Your task to perform on an android device: Open network settings Image 0: 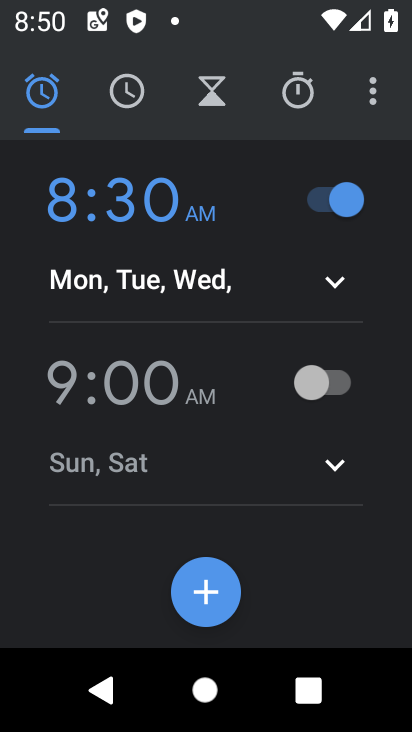
Step 0: click (383, 96)
Your task to perform on an android device: Open network settings Image 1: 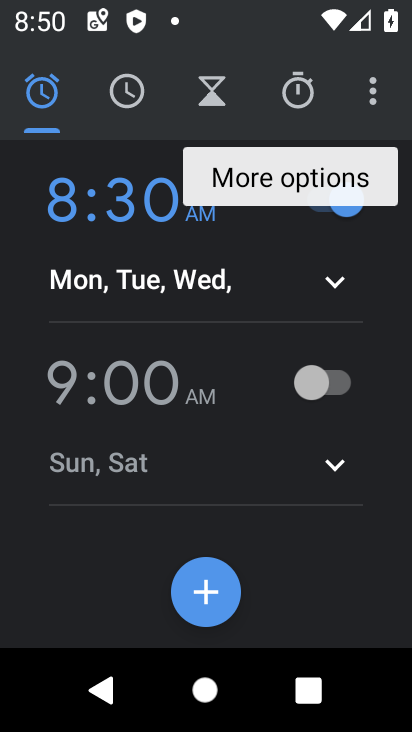
Step 1: click (375, 101)
Your task to perform on an android device: Open network settings Image 2: 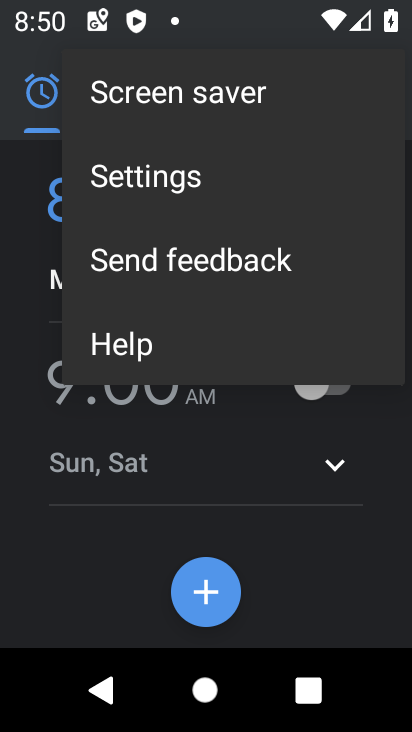
Step 2: press home button
Your task to perform on an android device: Open network settings Image 3: 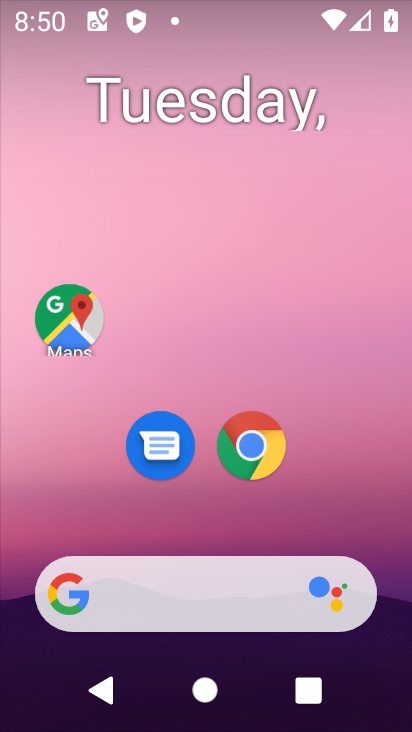
Step 3: drag from (63, 656) to (346, 179)
Your task to perform on an android device: Open network settings Image 4: 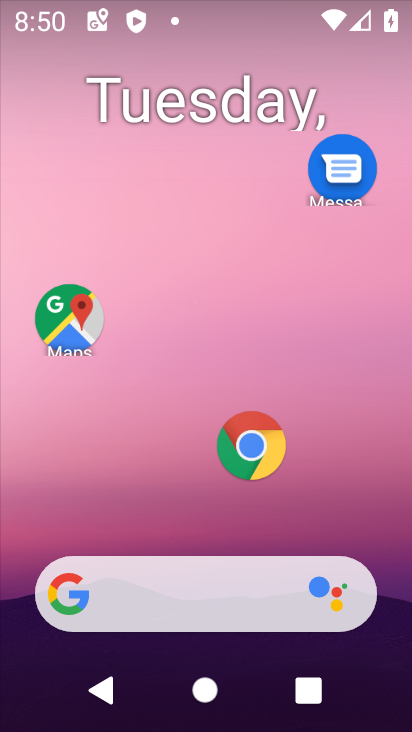
Step 4: click (194, 192)
Your task to perform on an android device: Open network settings Image 5: 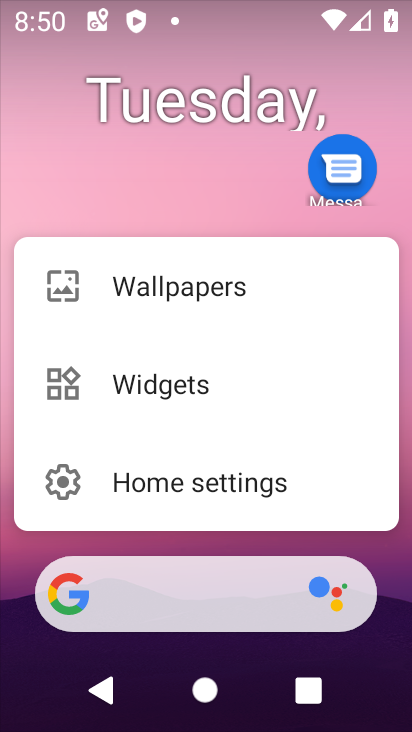
Step 5: click (15, 602)
Your task to perform on an android device: Open network settings Image 6: 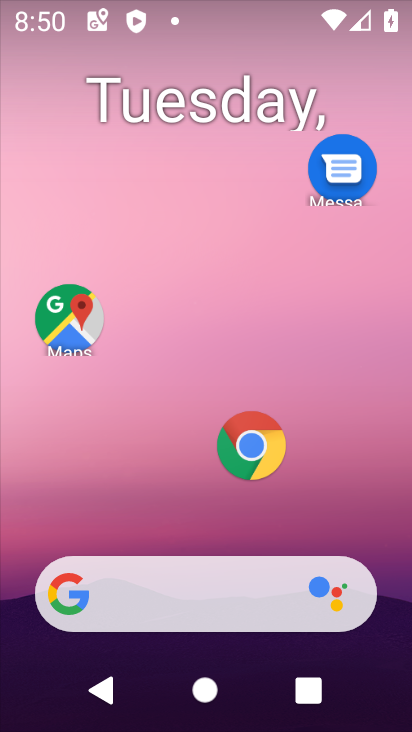
Step 6: drag from (67, 444) to (157, 250)
Your task to perform on an android device: Open network settings Image 7: 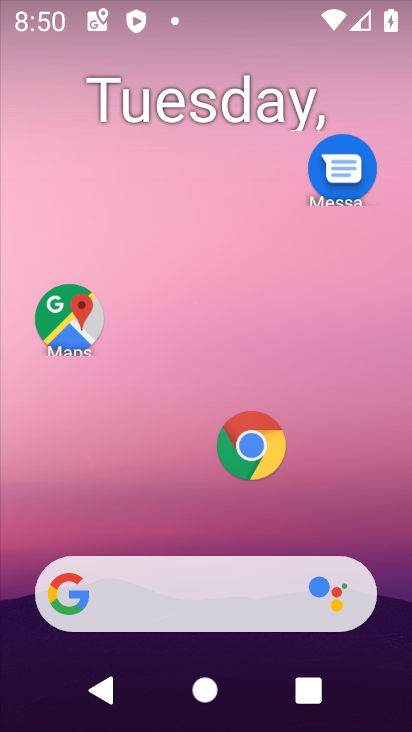
Step 7: drag from (52, 522) to (204, 290)
Your task to perform on an android device: Open network settings Image 8: 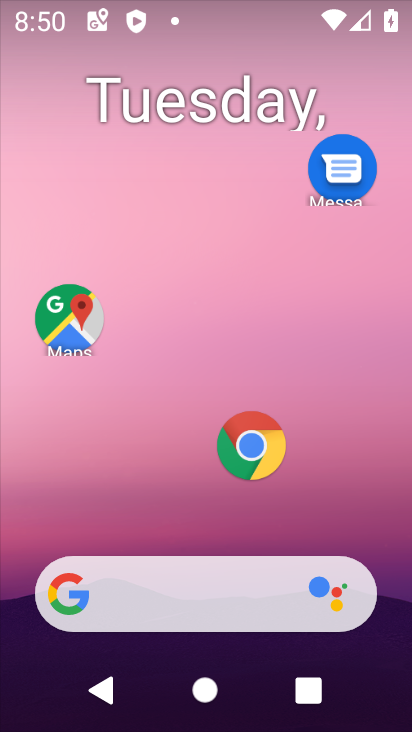
Step 8: click (247, 201)
Your task to perform on an android device: Open network settings Image 9: 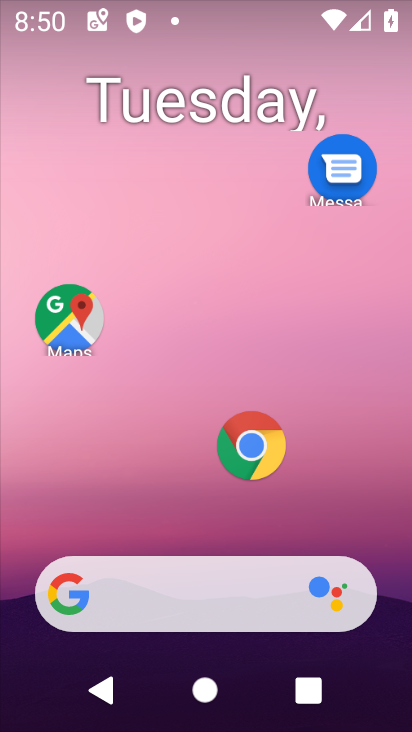
Step 9: drag from (42, 610) to (236, 274)
Your task to perform on an android device: Open network settings Image 10: 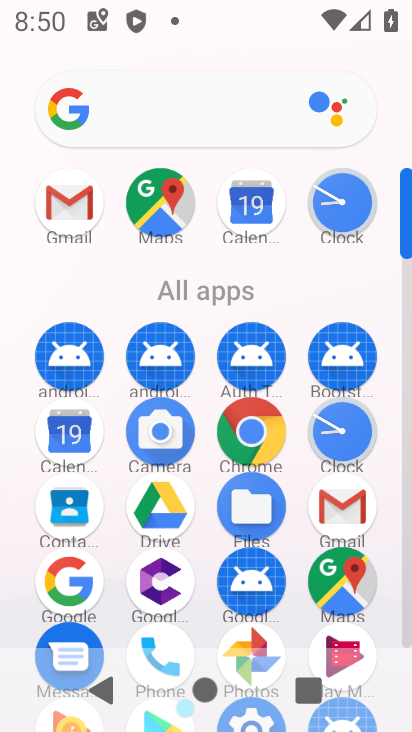
Step 10: drag from (51, 610) to (272, 229)
Your task to perform on an android device: Open network settings Image 11: 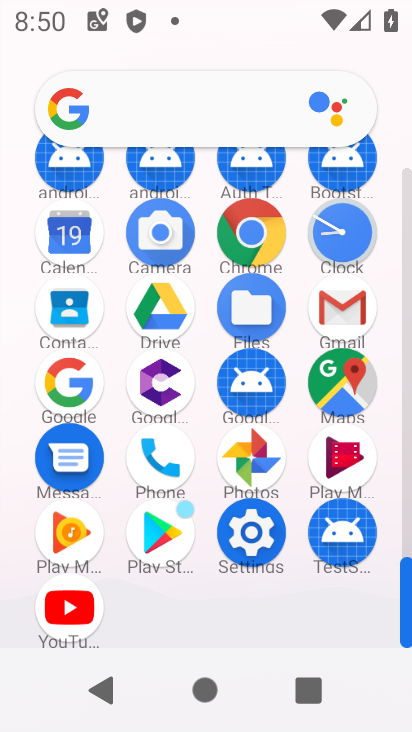
Step 11: click (232, 537)
Your task to perform on an android device: Open network settings Image 12: 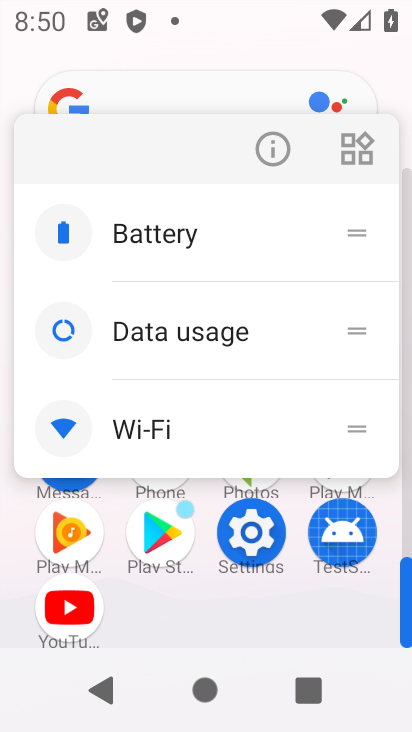
Step 12: click (244, 524)
Your task to perform on an android device: Open network settings Image 13: 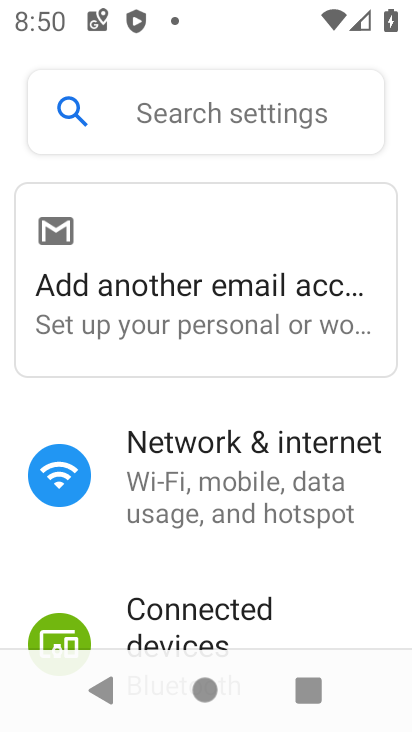
Step 13: click (164, 452)
Your task to perform on an android device: Open network settings Image 14: 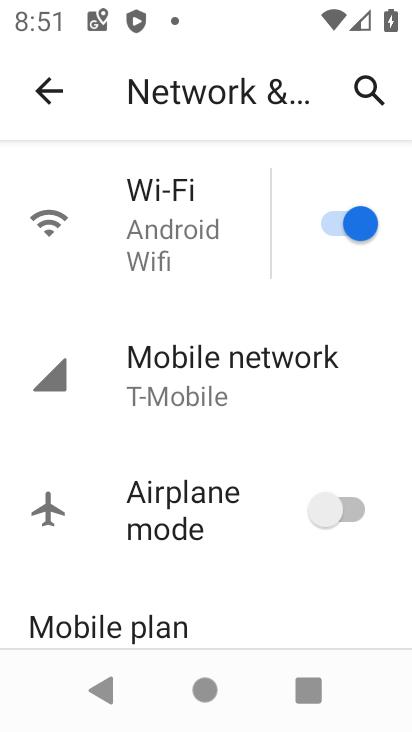
Step 14: task complete